Your task to perform on an android device: turn off wifi Image 0: 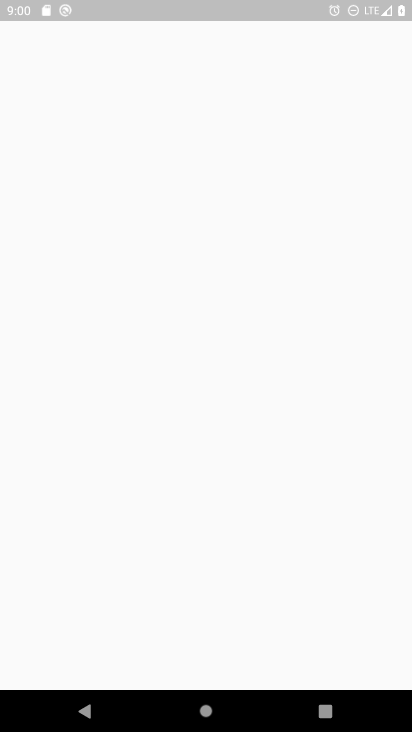
Step 0: click (335, 148)
Your task to perform on an android device: turn off wifi Image 1: 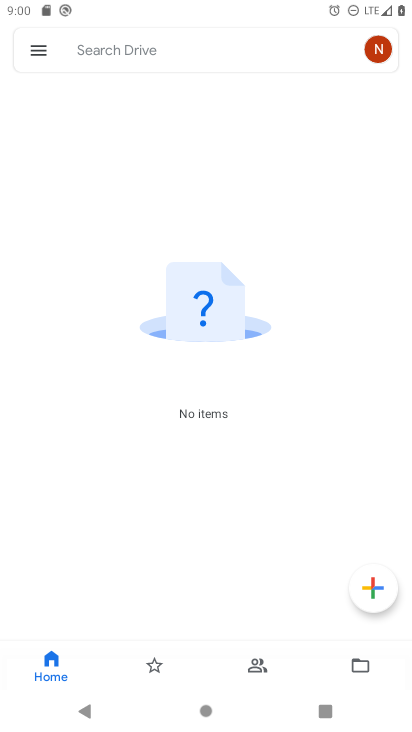
Step 1: press home button
Your task to perform on an android device: turn off wifi Image 2: 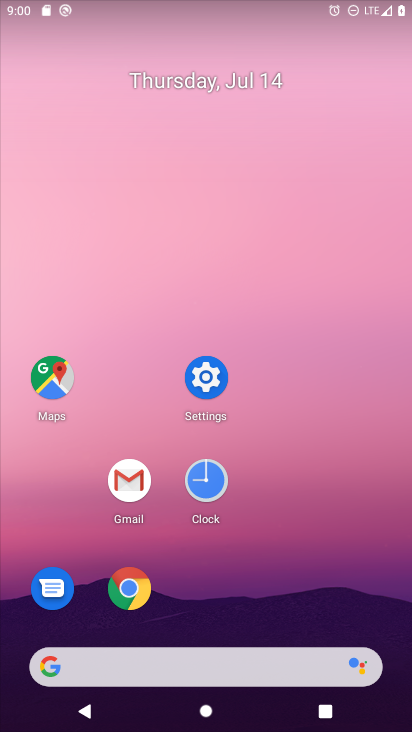
Step 2: click (212, 368)
Your task to perform on an android device: turn off wifi Image 3: 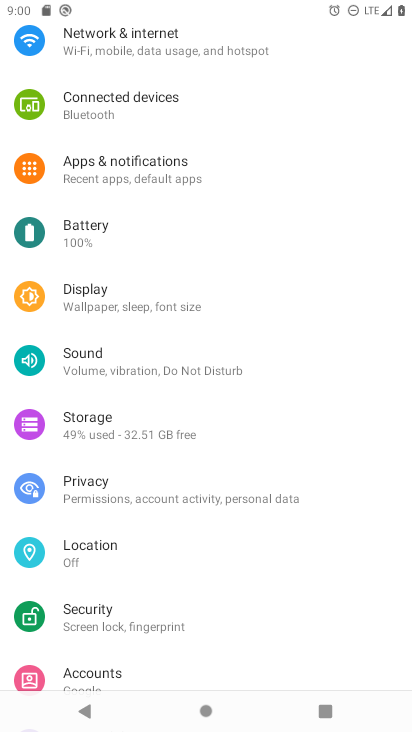
Step 3: click (130, 35)
Your task to perform on an android device: turn off wifi Image 4: 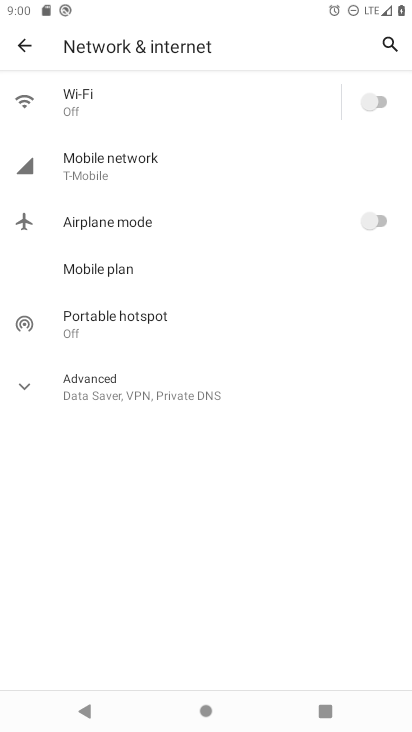
Step 4: task complete